Your task to perform on an android device: open sync settings in chrome Image 0: 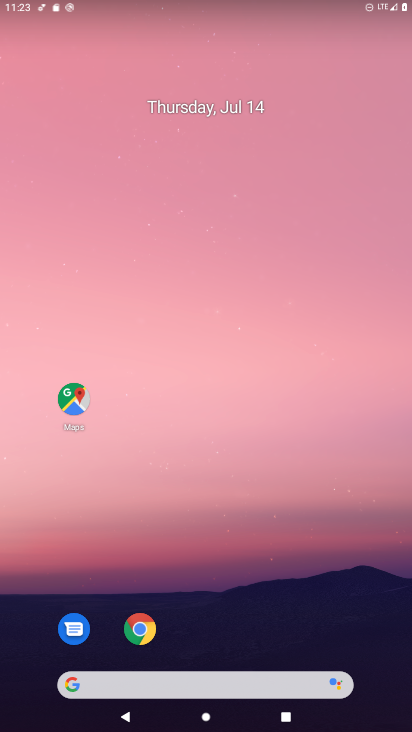
Step 0: drag from (256, 625) to (255, 157)
Your task to perform on an android device: open sync settings in chrome Image 1: 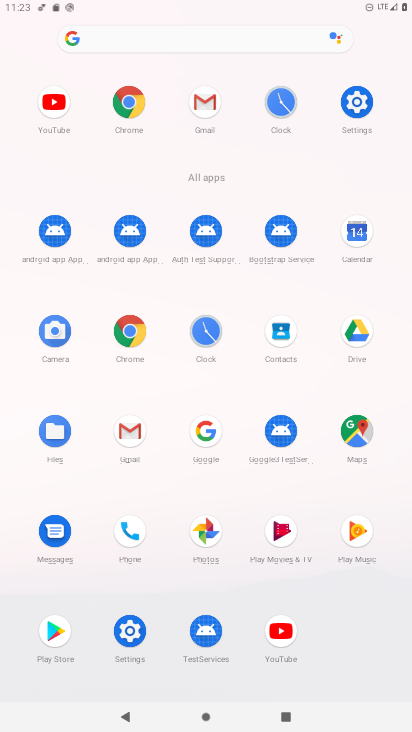
Step 1: click (361, 108)
Your task to perform on an android device: open sync settings in chrome Image 2: 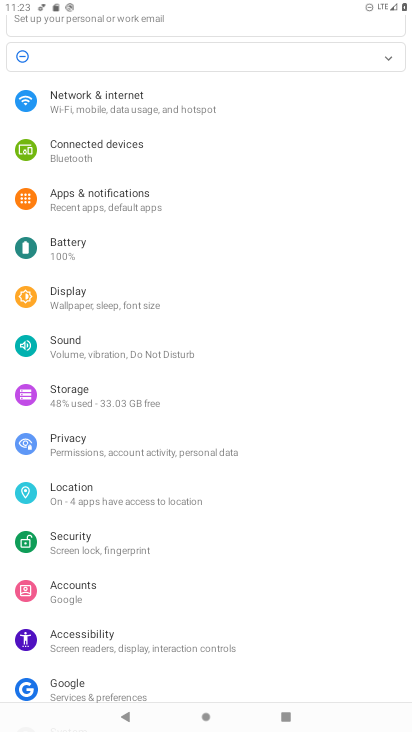
Step 2: press home button
Your task to perform on an android device: open sync settings in chrome Image 3: 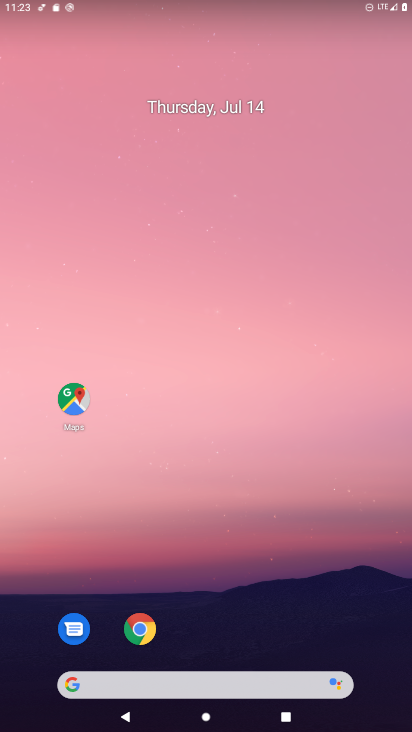
Step 3: click (148, 626)
Your task to perform on an android device: open sync settings in chrome Image 4: 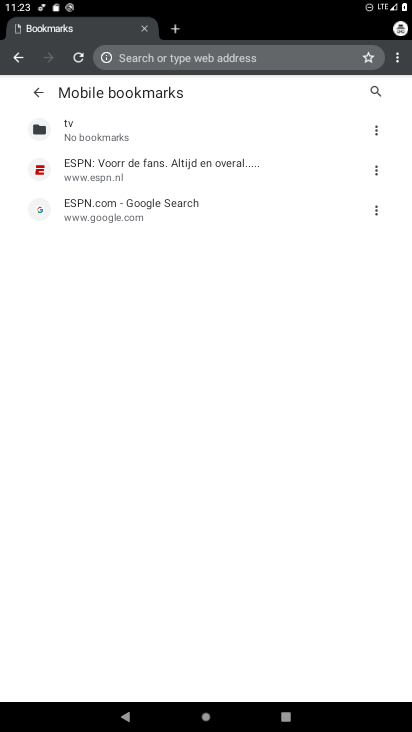
Step 4: click (397, 66)
Your task to perform on an android device: open sync settings in chrome Image 5: 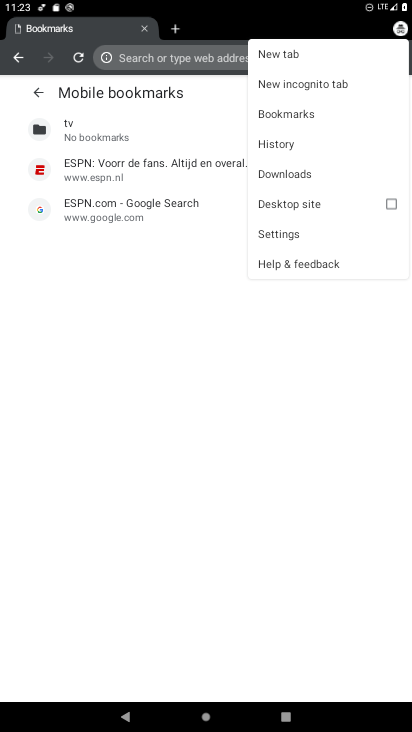
Step 5: click (269, 239)
Your task to perform on an android device: open sync settings in chrome Image 6: 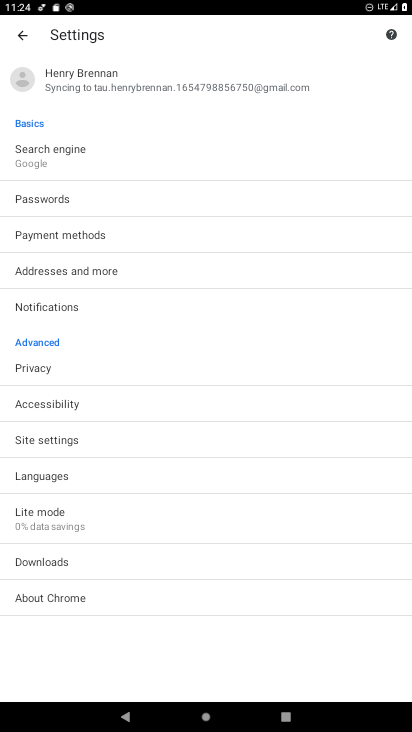
Step 6: click (206, 93)
Your task to perform on an android device: open sync settings in chrome Image 7: 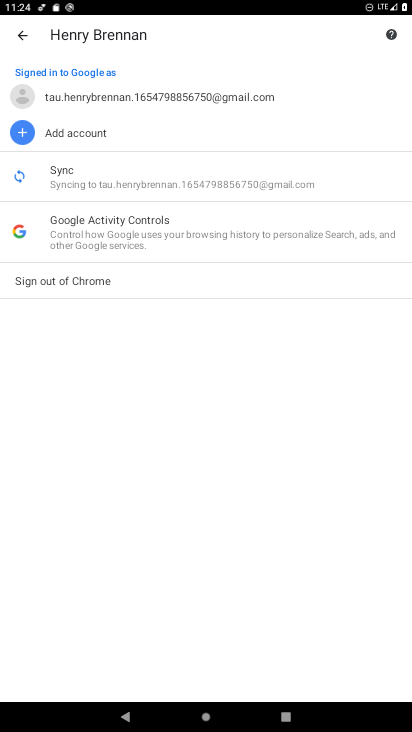
Step 7: click (138, 184)
Your task to perform on an android device: open sync settings in chrome Image 8: 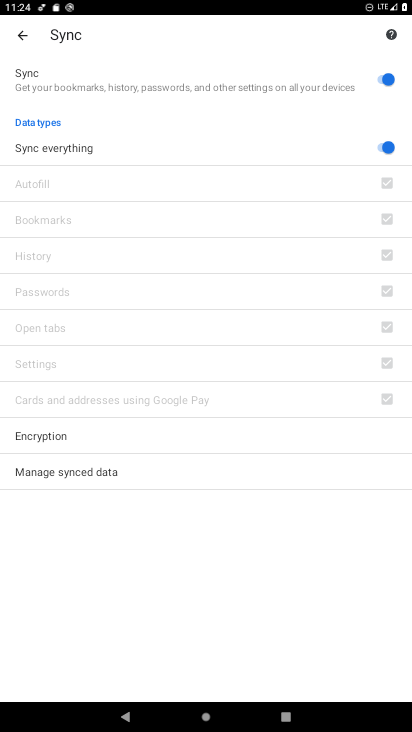
Step 8: task complete